Your task to perform on an android device: open a bookmark in the chrome app Image 0: 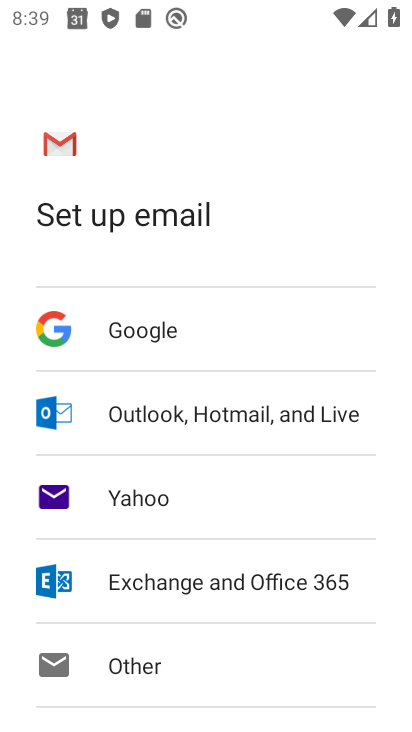
Step 0: press back button
Your task to perform on an android device: open a bookmark in the chrome app Image 1: 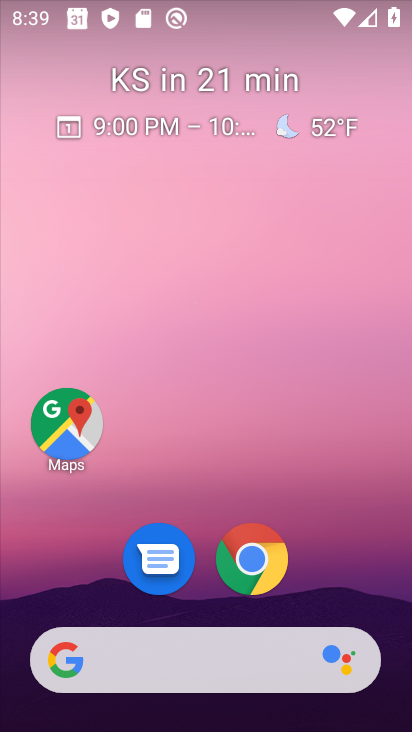
Step 1: drag from (305, 569) to (287, 7)
Your task to perform on an android device: open a bookmark in the chrome app Image 2: 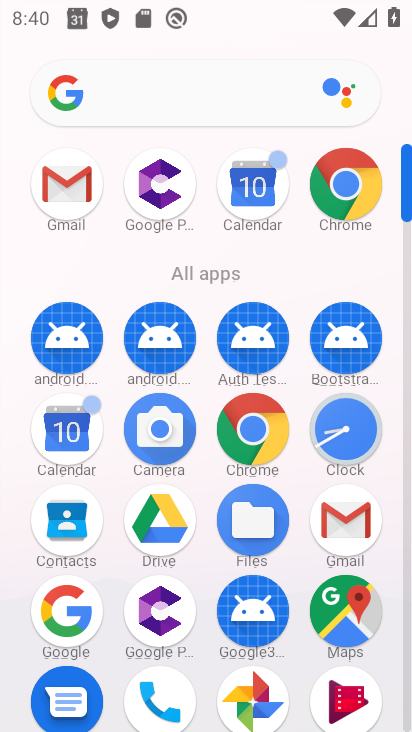
Step 2: click (253, 425)
Your task to perform on an android device: open a bookmark in the chrome app Image 3: 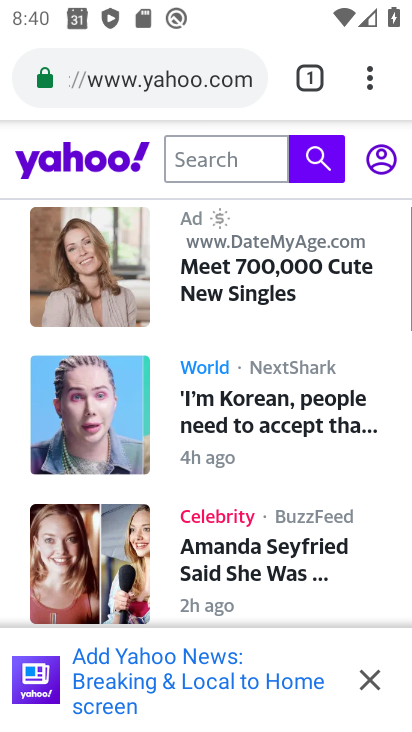
Step 3: task complete